Your task to perform on an android device: turn notification dots off Image 0: 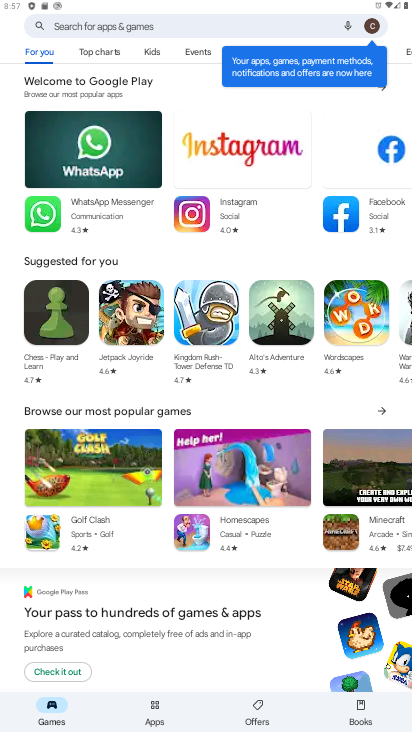
Step 0: press home button
Your task to perform on an android device: turn notification dots off Image 1: 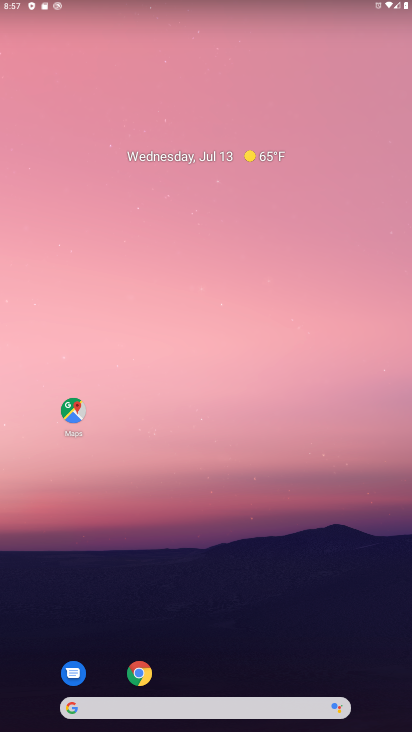
Step 1: drag from (231, 708) to (260, 175)
Your task to perform on an android device: turn notification dots off Image 2: 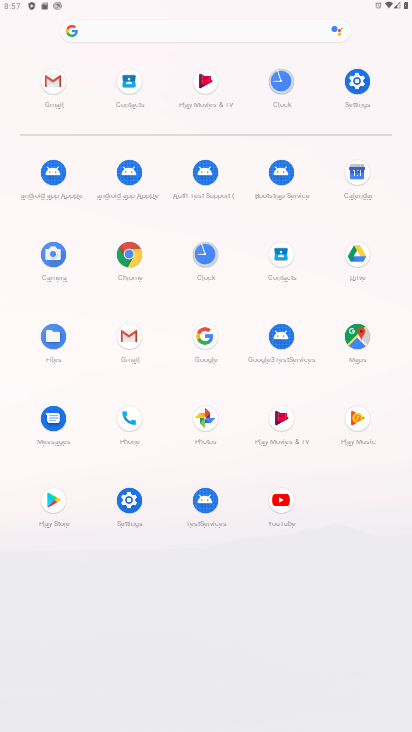
Step 2: click (359, 78)
Your task to perform on an android device: turn notification dots off Image 3: 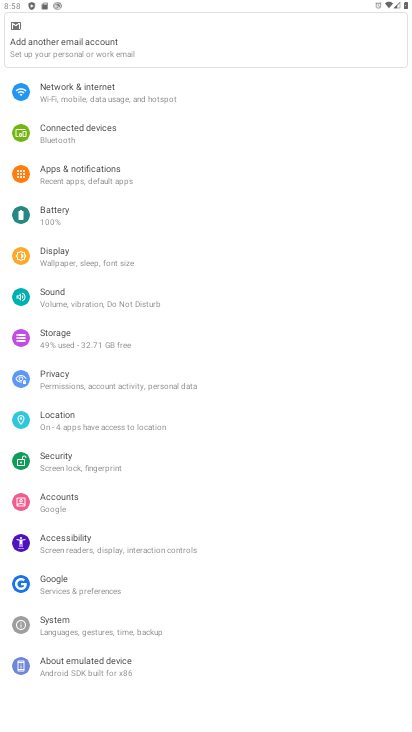
Step 3: click (70, 175)
Your task to perform on an android device: turn notification dots off Image 4: 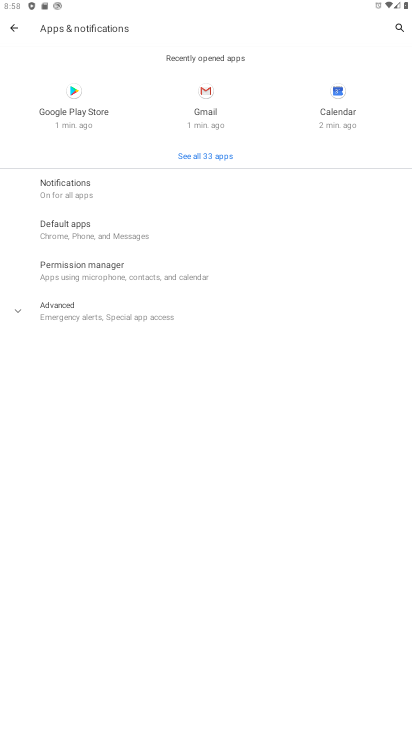
Step 4: click (71, 191)
Your task to perform on an android device: turn notification dots off Image 5: 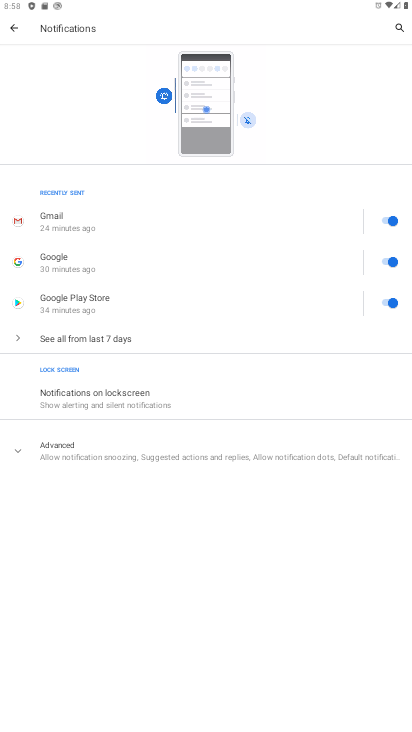
Step 5: click (136, 455)
Your task to perform on an android device: turn notification dots off Image 6: 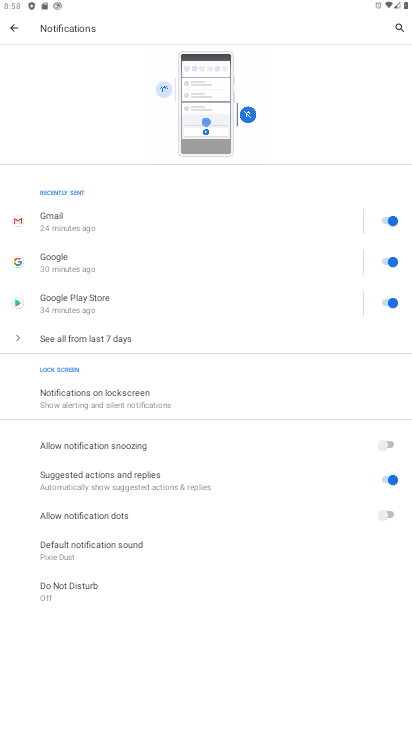
Step 6: task complete